Your task to perform on an android device: Search for vegetarian restaurants on Maps Image 0: 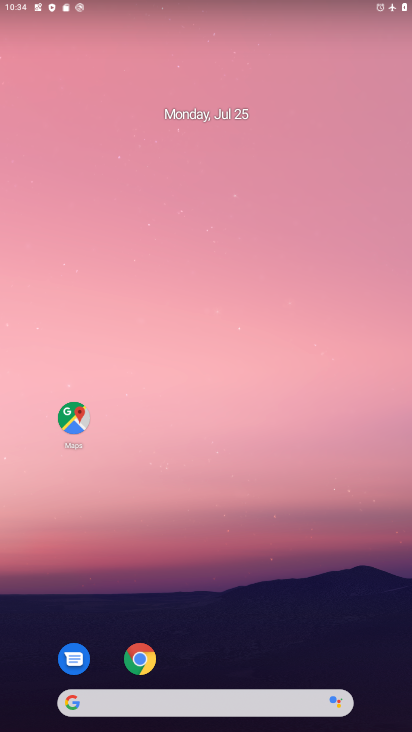
Step 0: drag from (204, 686) to (339, 6)
Your task to perform on an android device: Search for vegetarian restaurants on Maps Image 1: 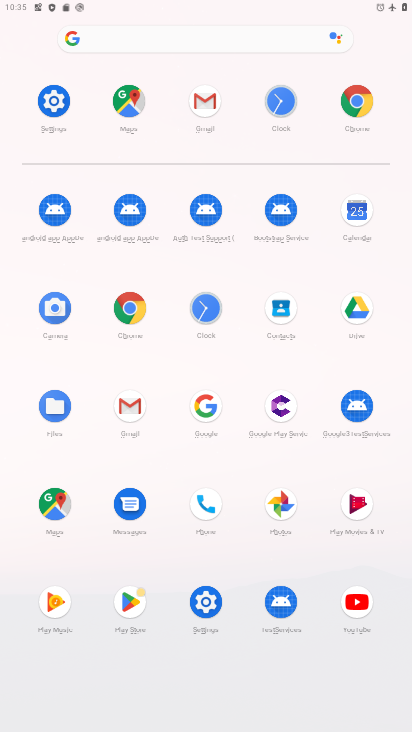
Step 1: click (63, 498)
Your task to perform on an android device: Search for vegetarian restaurants on Maps Image 2: 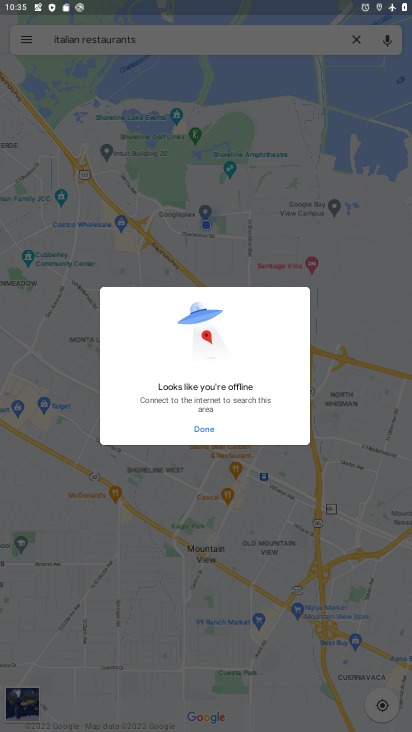
Step 2: click (210, 425)
Your task to perform on an android device: Search for vegetarian restaurants on Maps Image 3: 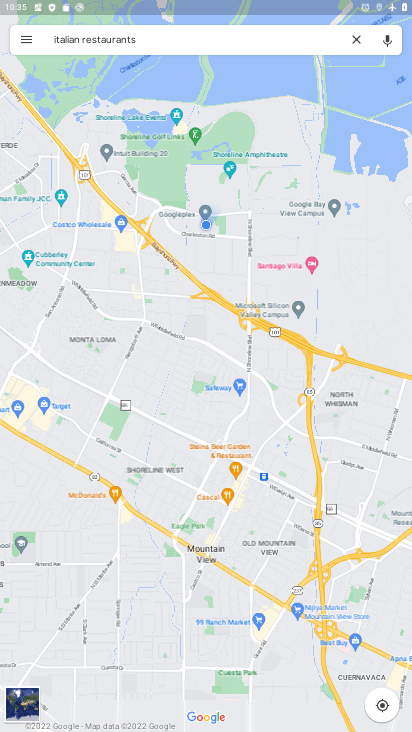
Step 3: click (143, 28)
Your task to perform on an android device: Search for vegetarian restaurants on Maps Image 4: 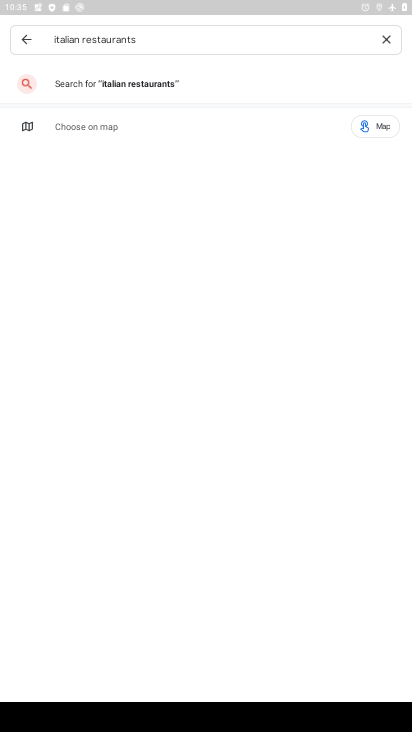
Step 4: click (383, 37)
Your task to perform on an android device: Search for vegetarian restaurants on Maps Image 5: 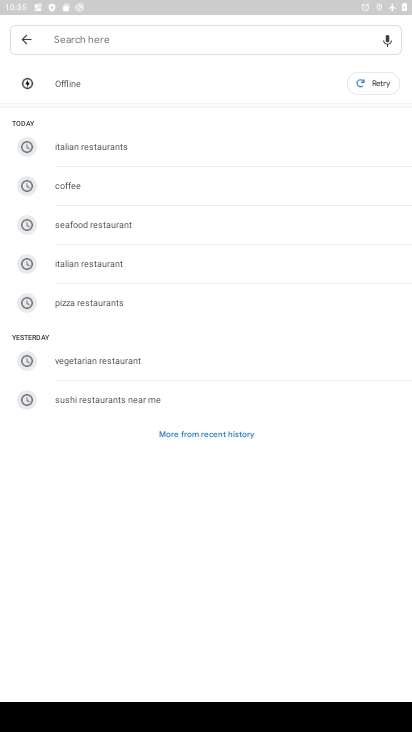
Step 5: click (90, 359)
Your task to perform on an android device: Search for vegetarian restaurants on Maps Image 6: 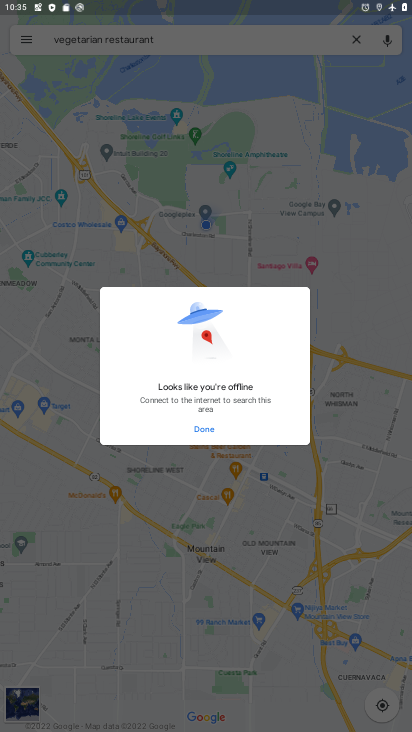
Step 6: task complete